Your task to perform on an android device: change text size in settings app Image 0: 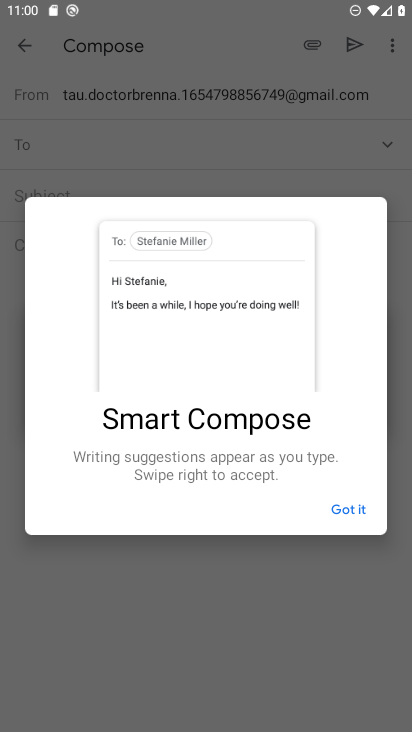
Step 0: press home button
Your task to perform on an android device: change text size in settings app Image 1: 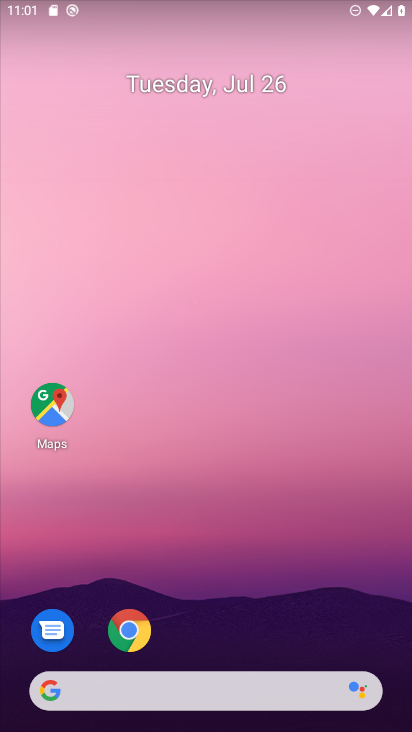
Step 1: drag from (377, 637) to (313, 100)
Your task to perform on an android device: change text size in settings app Image 2: 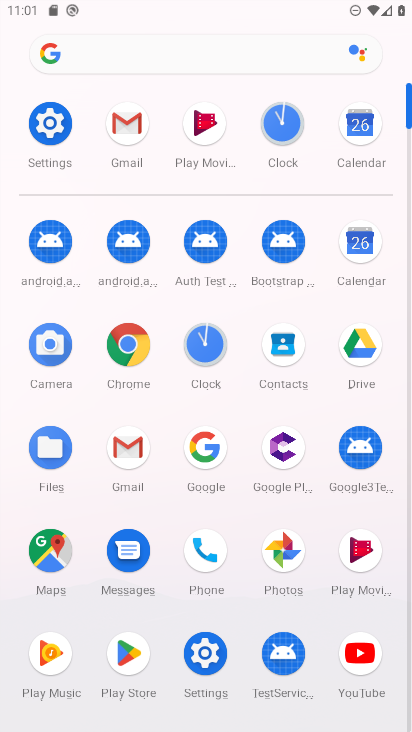
Step 2: click (207, 654)
Your task to perform on an android device: change text size in settings app Image 3: 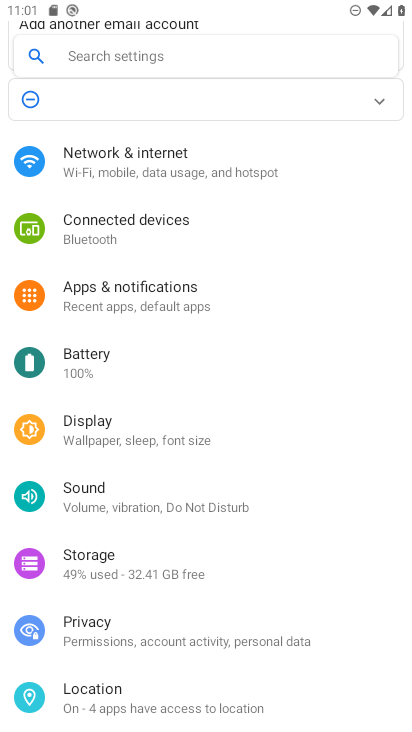
Step 3: drag from (220, 603) to (236, 253)
Your task to perform on an android device: change text size in settings app Image 4: 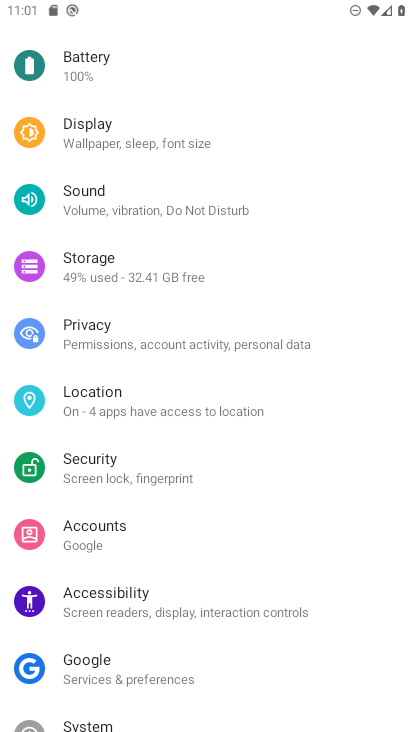
Step 4: click (101, 131)
Your task to perform on an android device: change text size in settings app Image 5: 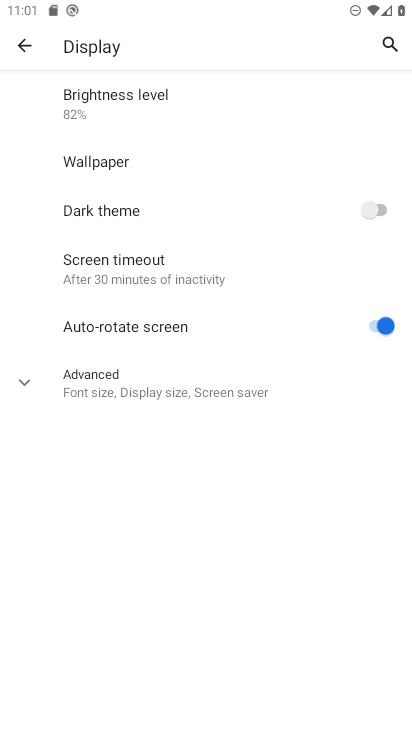
Step 5: click (22, 379)
Your task to perform on an android device: change text size in settings app Image 6: 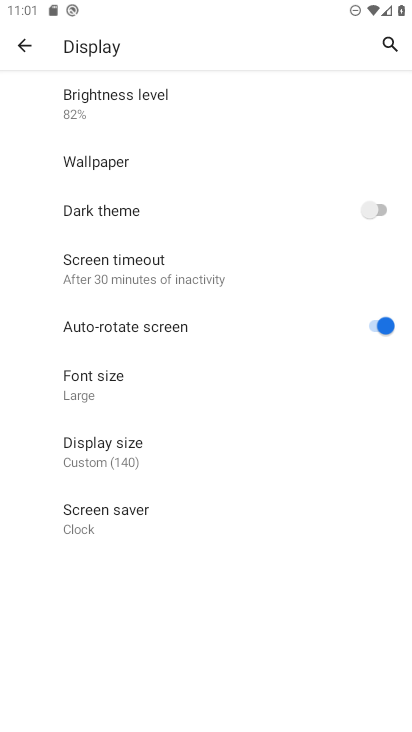
Step 6: click (76, 386)
Your task to perform on an android device: change text size in settings app Image 7: 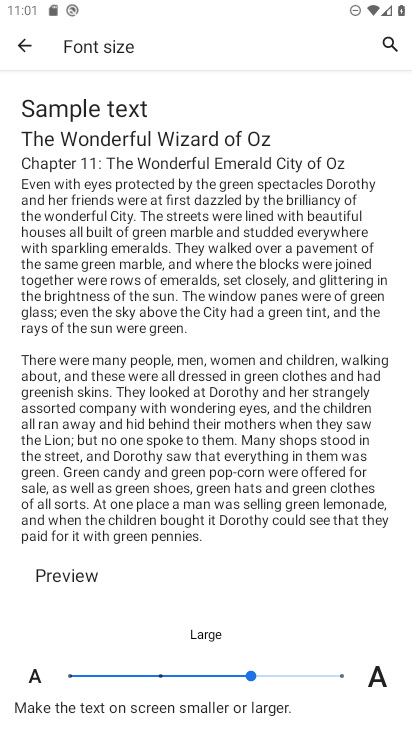
Step 7: click (341, 674)
Your task to perform on an android device: change text size in settings app Image 8: 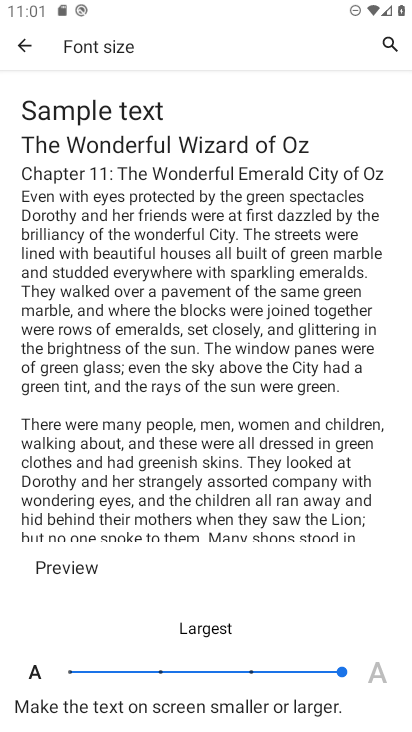
Step 8: task complete